Your task to perform on an android device: Open ESPN.com Image 0: 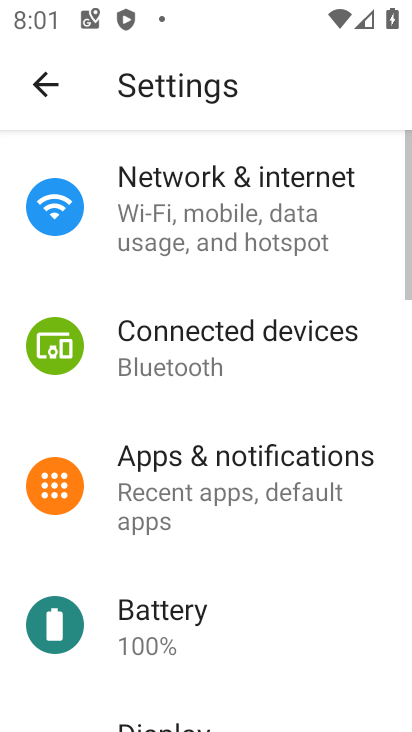
Step 0: press home button
Your task to perform on an android device: Open ESPN.com Image 1: 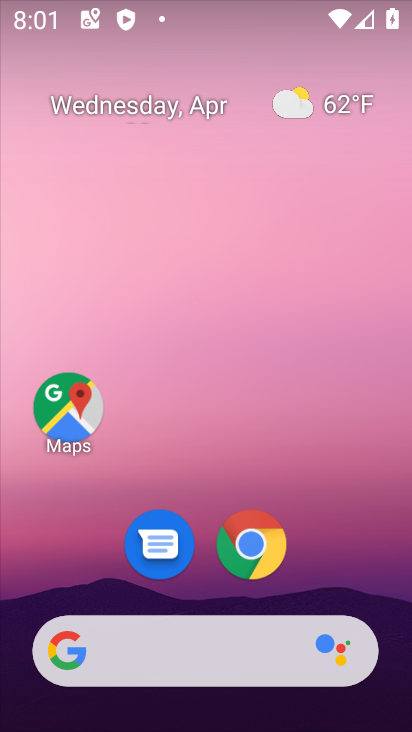
Step 1: click (249, 534)
Your task to perform on an android device: Open ESPN.com Image 2: 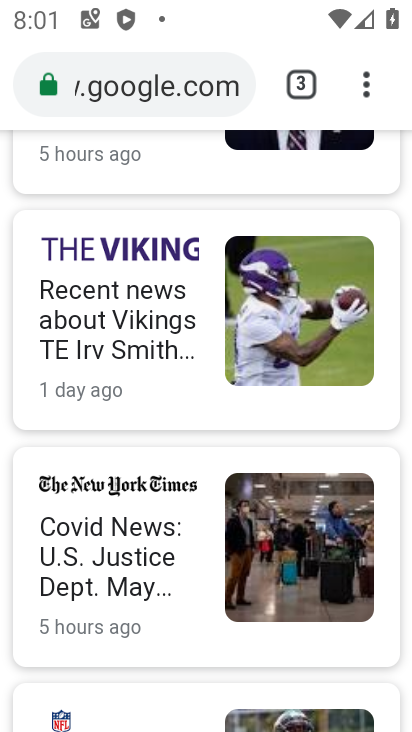
Step 2: click (303, 80)
Your task to perform on an android device: Open ESPN.com Image 3: 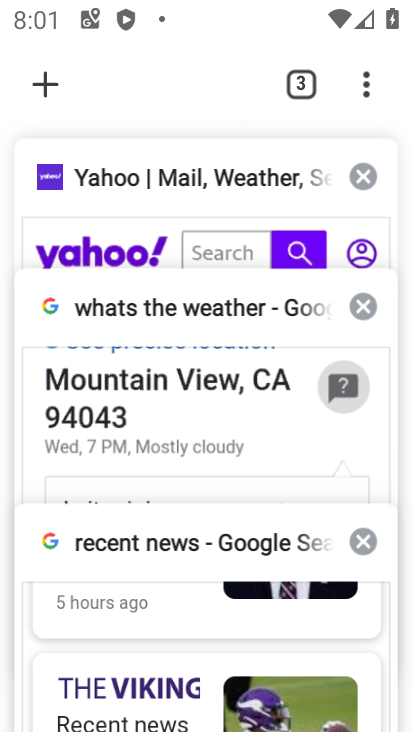
Step 3: click (41, 87)
Your task to perform on an android device: Open ESPN.com Image 4: 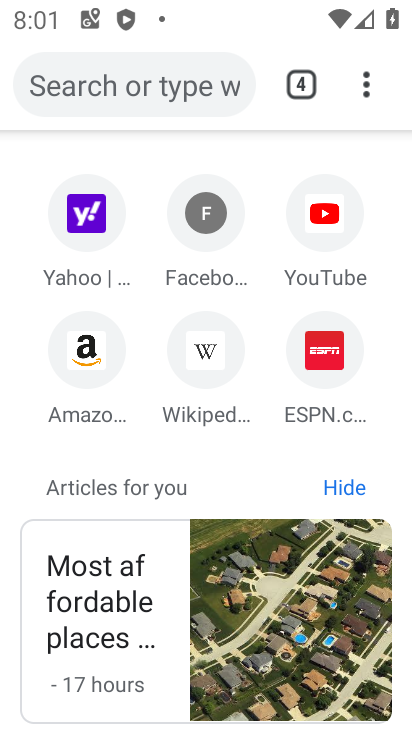
Step 4: click (321, 362)
Your task to perform on an android device: Open ESPN.com Image 5: 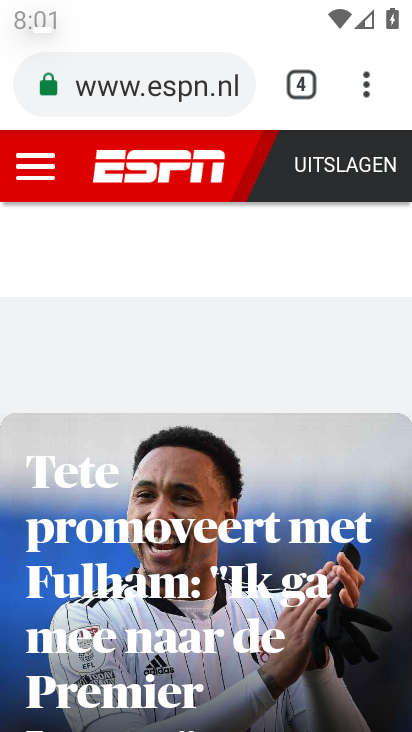
Step 5: task complete